Your task to perform on an android device: Go to Yahoo.com Image 0: 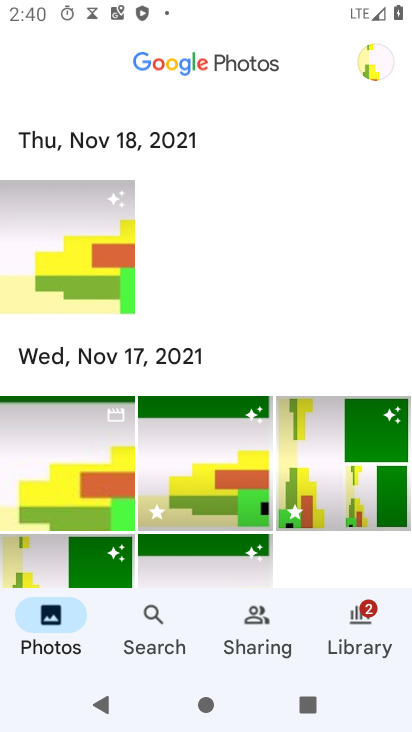
Step 0: press home button
Your task to perform on an android device: Go to Yahoo.com Image 1: 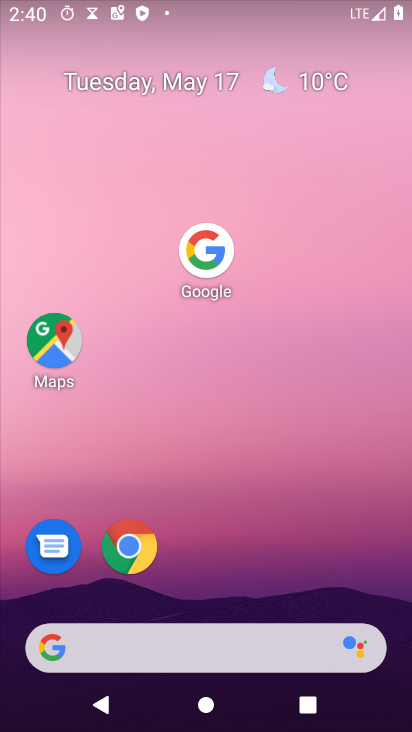
Step 1: click (128, 558)
Your task to perform on an android device: Go to Yahoo.com Image 2: 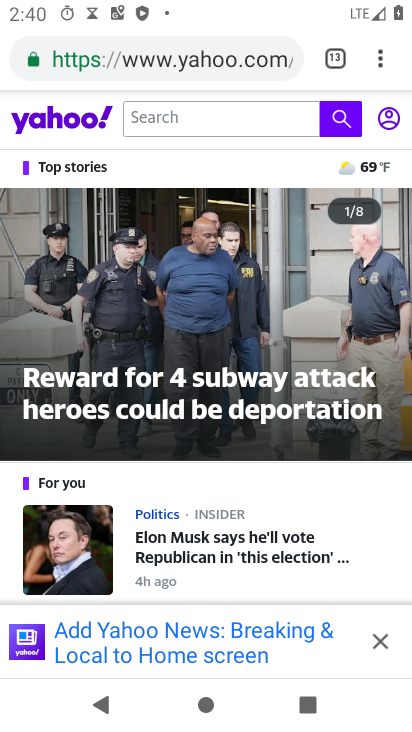
Step 2: task complete